Your task to perform on an android device: What is the speed of a tiger? Image 0: 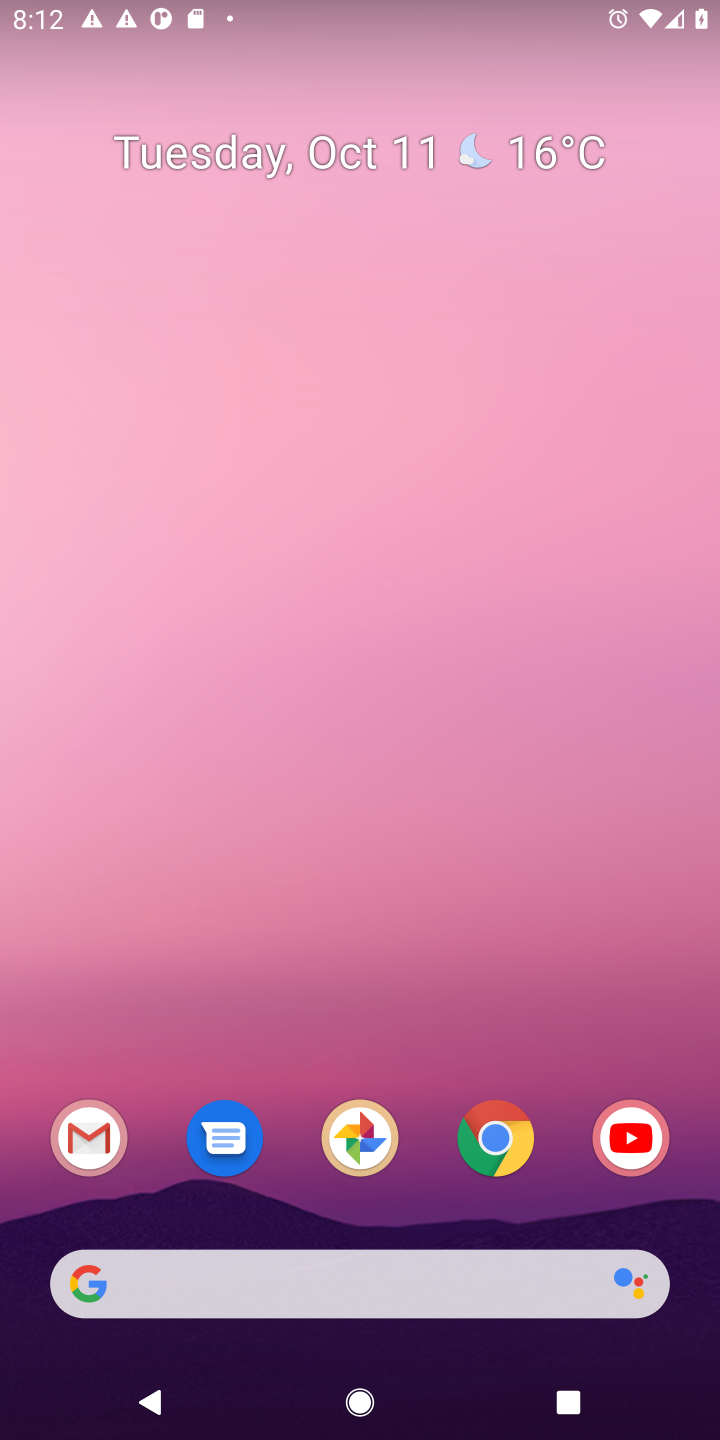
Step 0: click (310, 1282)
Your task to perform on an android device: What is the speed of a tiger? Image 1: 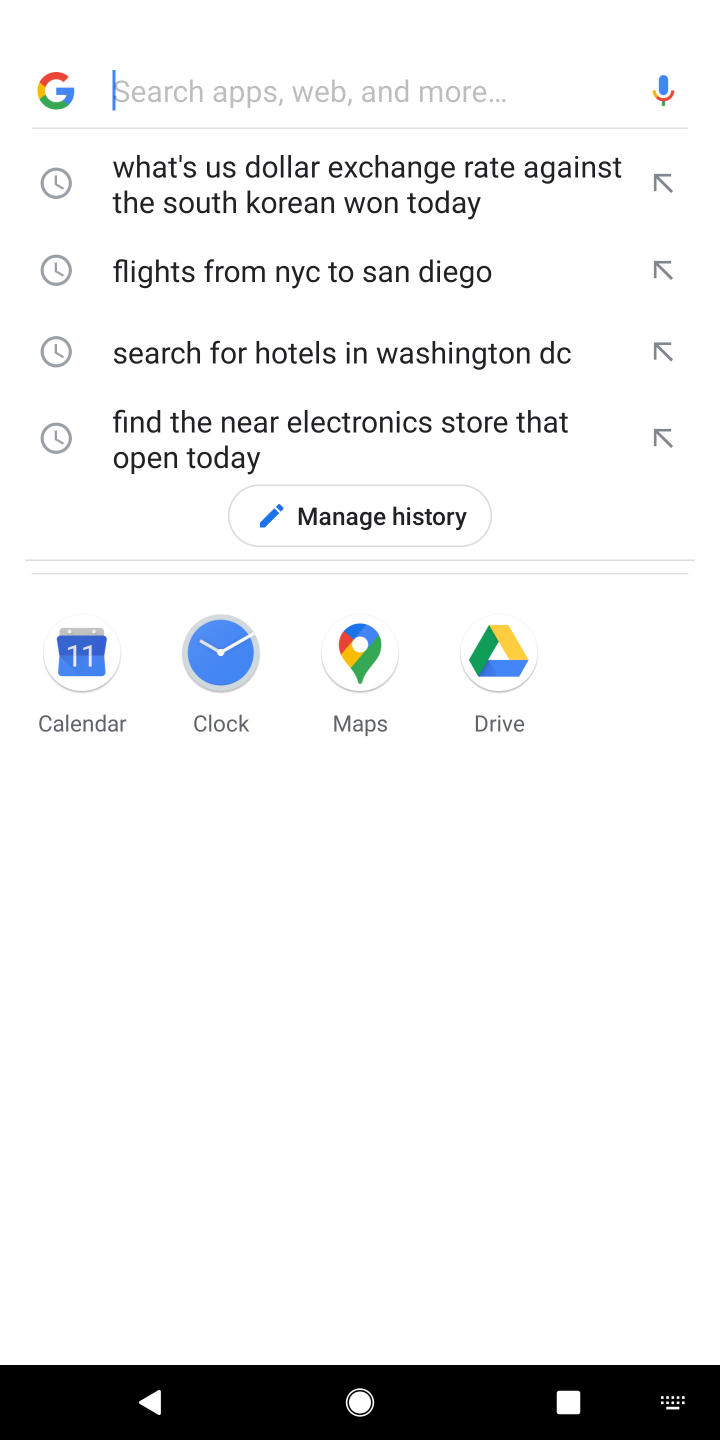
Step 1: type "speed of a tiger?"
Your task to perform on an android device: What is the speed of a tiger? Image 2: 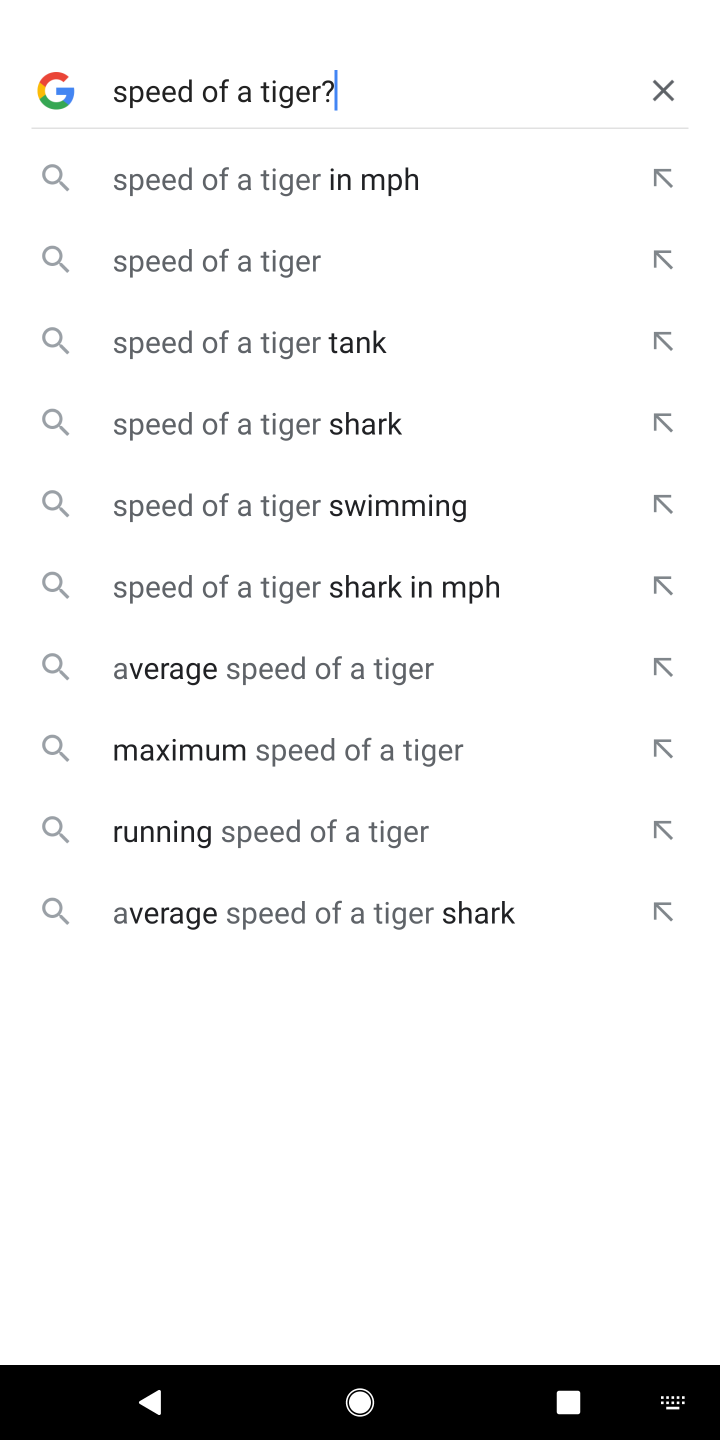
Step 2: click (214, 260)
Your task to perform on an android device: What is the speed of a tiger? Image 3: 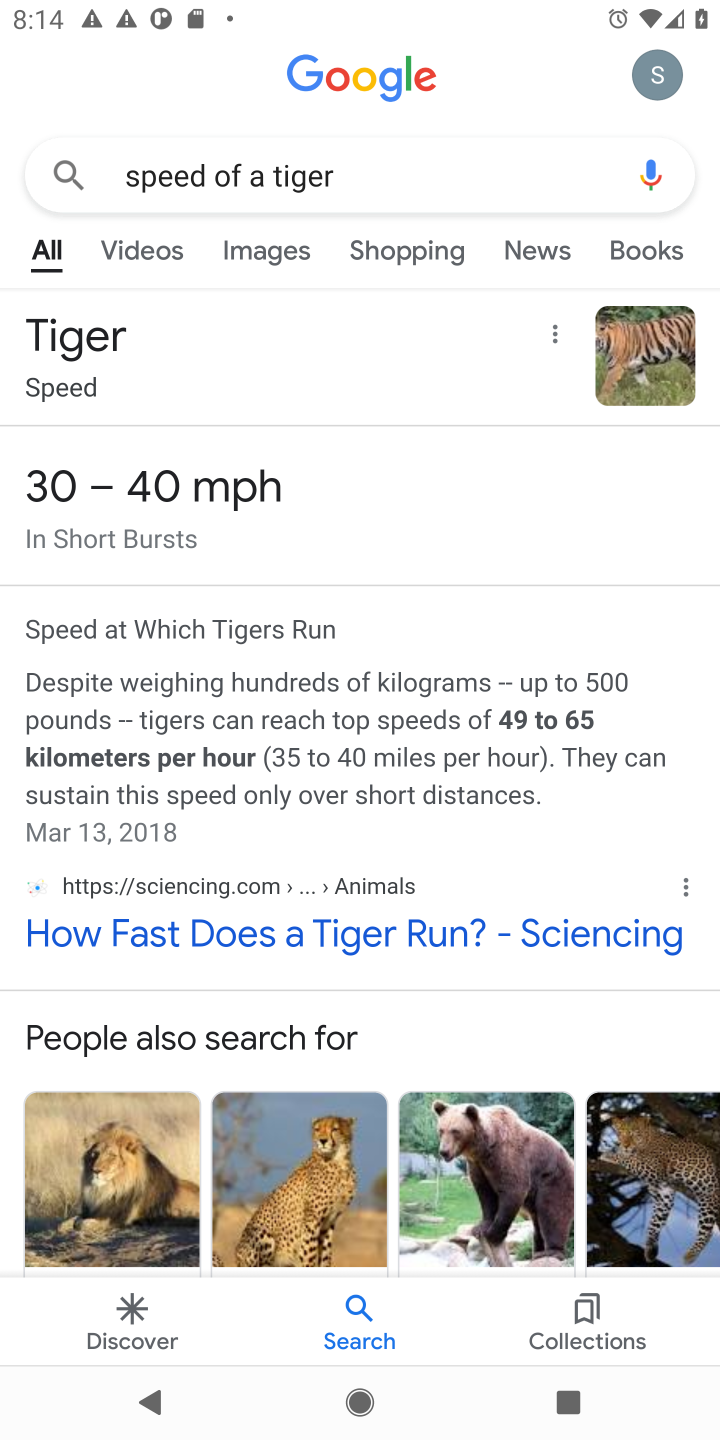
Step 3: task complete